Your task to perform on an android device: change keyboard looks Image 0: 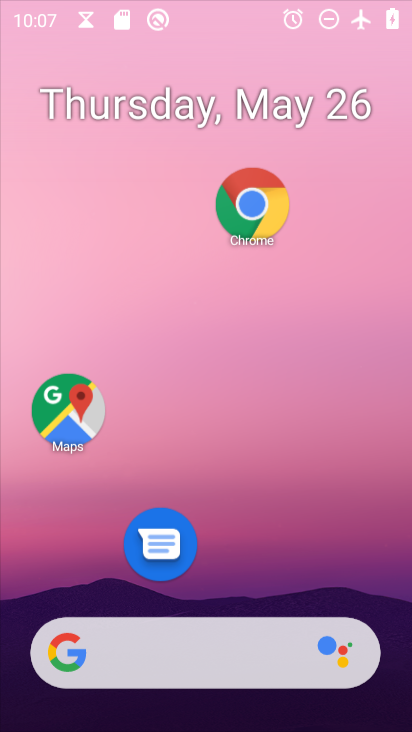
Step 0: press home button
Your task to perform on an android device: change keyboard looks Image 1: 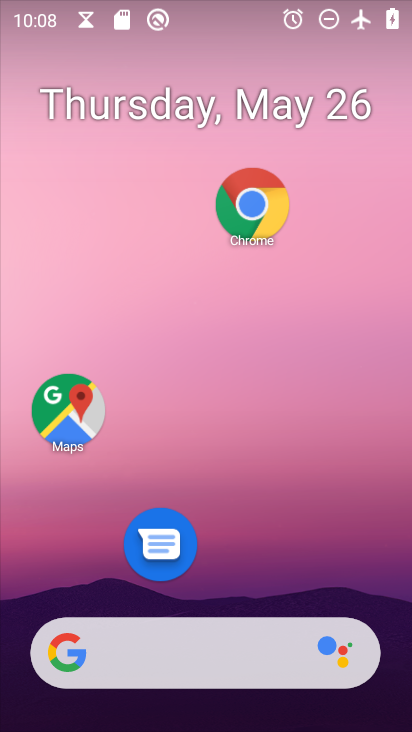
Step 1: drag from (209, 585) to (214, 27)
Your task to perform on an android device: change keyboard looks Image 2: 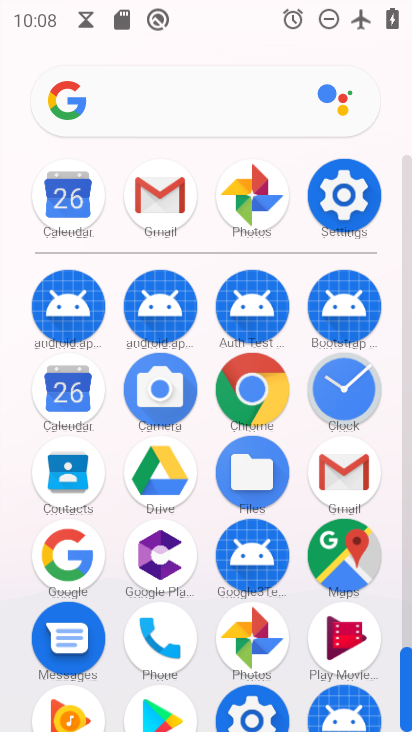
Step 2: click (341, 188)
Your task to perform on an android device: change keyboard looks Image 3: 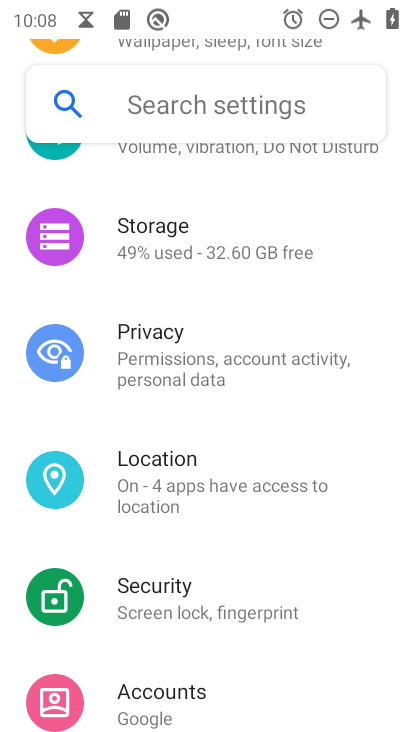
Step 3: drag from (202, 670) to (208, 174)
Your task to perform on an android device: change keyboard looks Image 4: 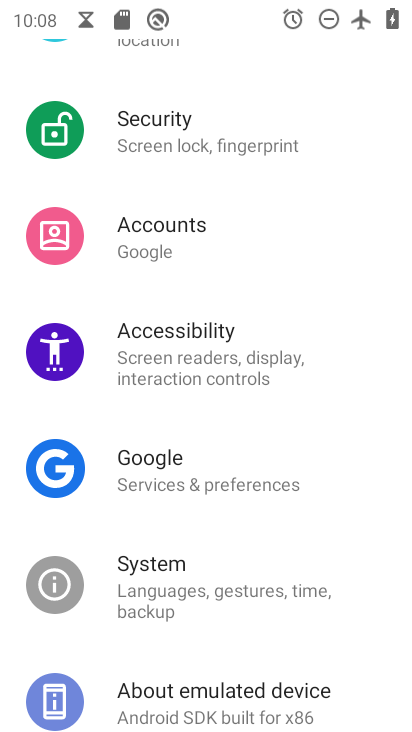
Step 4: click (195, 566)
Your task to perform on an android device: change keyboard looks Image 5: 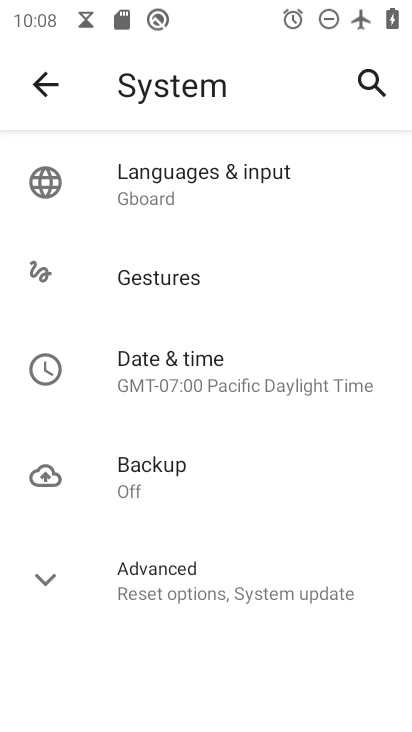
Step 5: click (101, 174)
Your task to perform on an android device: change keyboard looks Image 6: 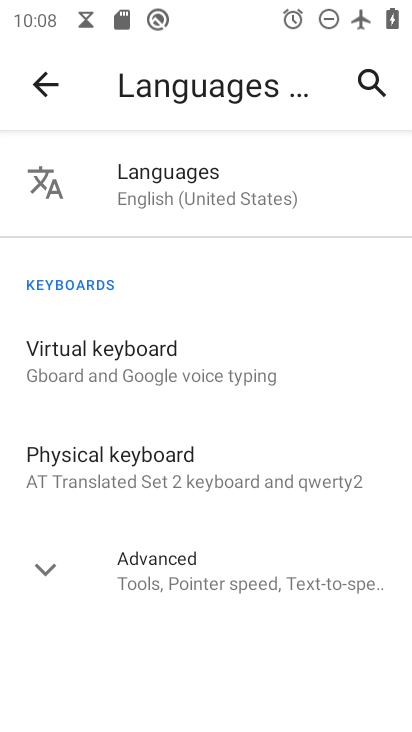
Step 6: click (195, 351)
Your task to perform on an android device: change keyboard looks Image 7: 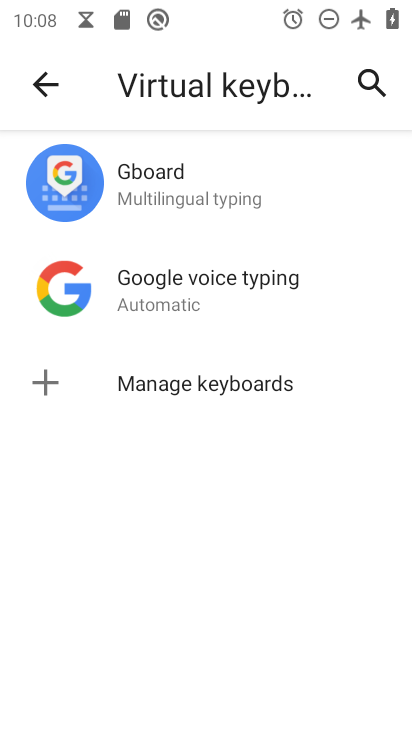
Step 7: click (207, 176)
Your task to perform on an android device: change keyboard looks Image 8: 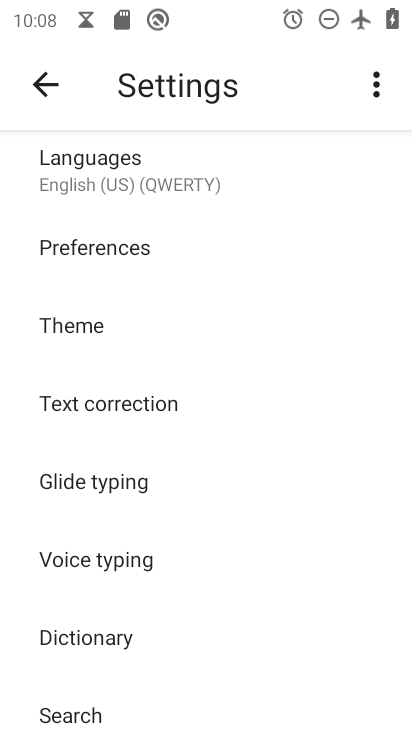
Step 8: click (117, 320)
Your task to perform on an android device: change keyboard looks Image 9: 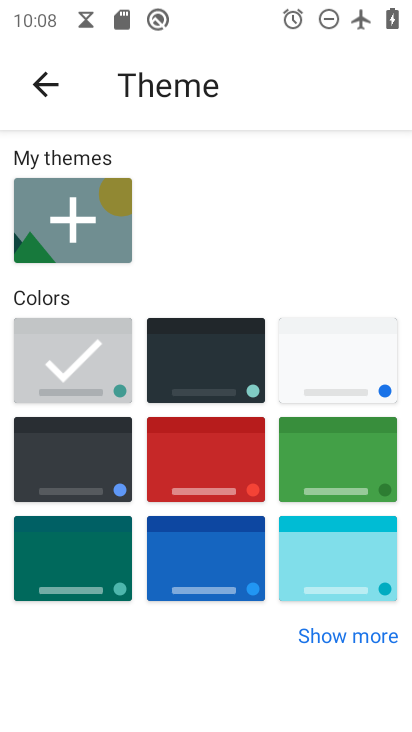
Step 9: click (343, 459)
Your task to perform on an android device: change keyboard looks Image 10: 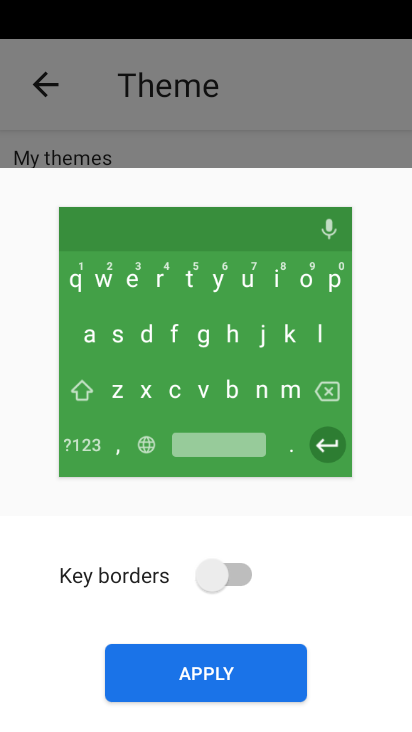
Step 10: click (212, 672)
Your task to perform on an android device: change keyboard looks Image 11: 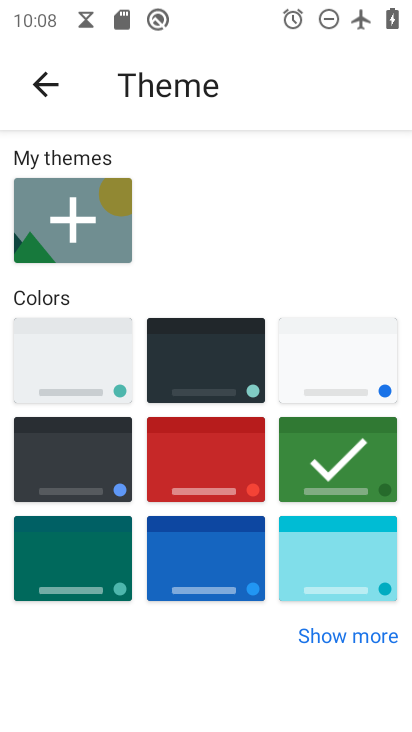
Step 11: task complete